Your task to perform on an android device: set default search engine in the chrome app Image 0: 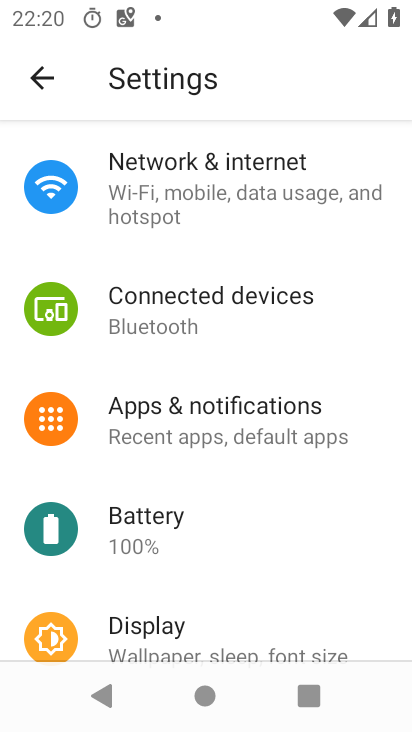
Step 0: press home button
Your task to perform on an android device: set default search engine in the chrome app Image 1: 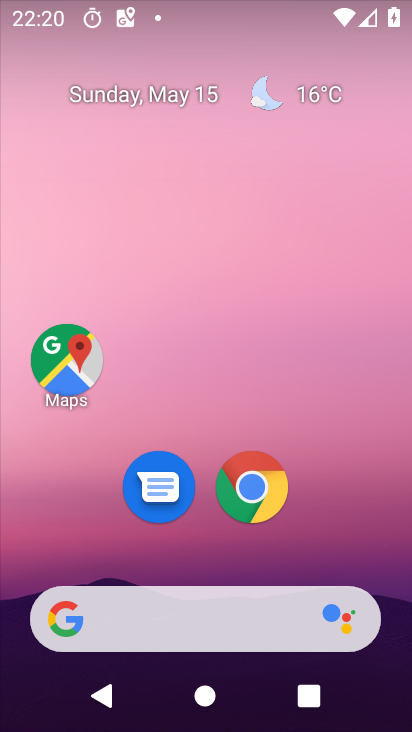
Step 1: click (252, 478)
Your task to perform on an android device: set default search engine in the chrome app Image 2: 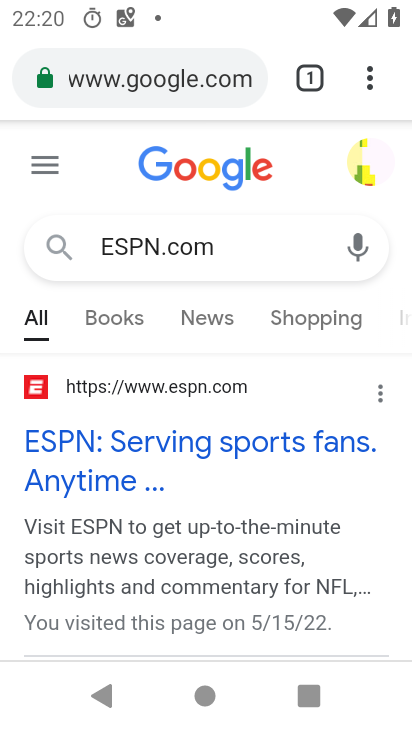
Step 2: click (368, 74)
Your task to perform on an android device: set default search engine in the chrome app Image 3: 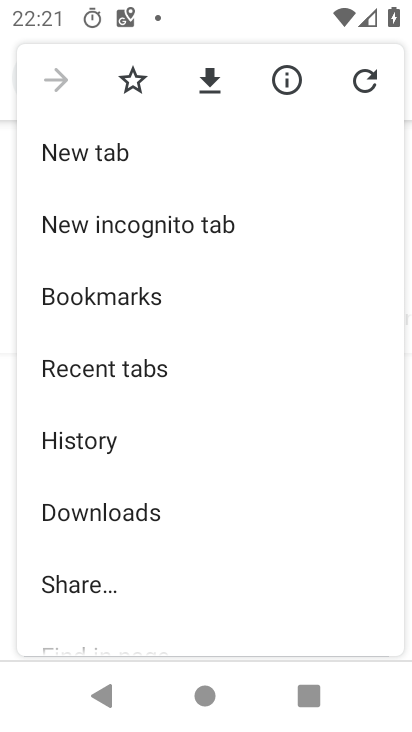
Step 3: drag from (328, 615) to (306, 305)
Your task to perform on an android device: set default search engine in the chrome app Image 4: 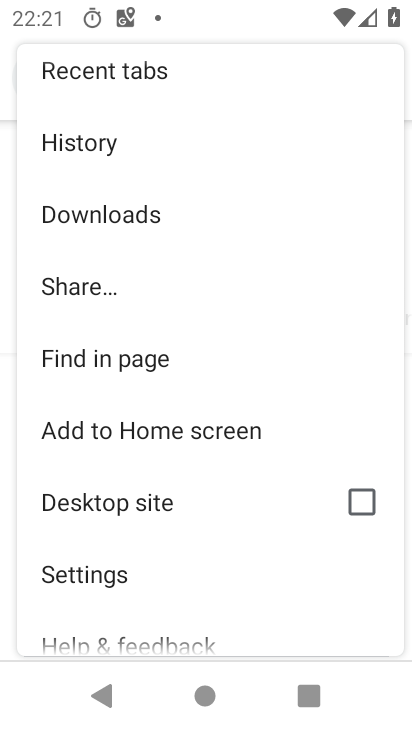
Step 4: click (70, 563)
Your task to perform on an android device: set default search engine in the chrome app Image 5: 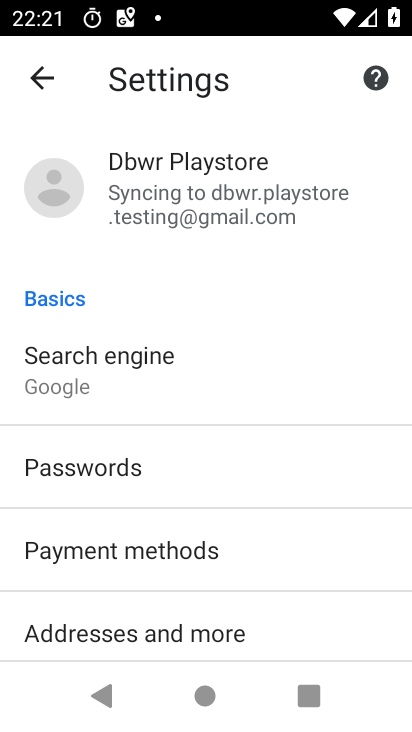
Step 5: click (83, 368)
Your task to perform on an android device: set default search engine in the chrome app Image 6: 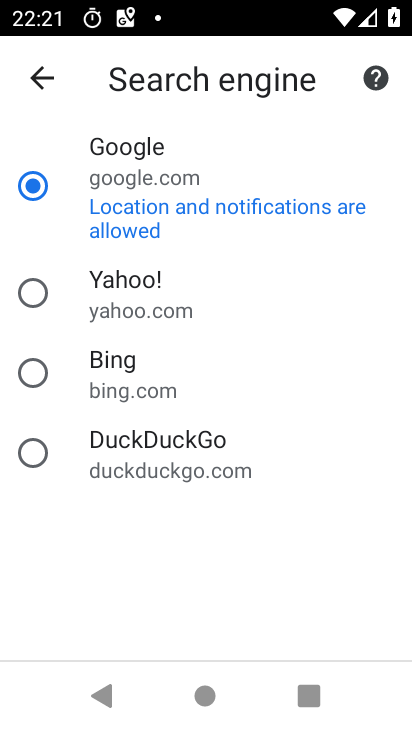
Step 6: task complete